Your task to perform on an android device: Open Reddit.com Image 0: 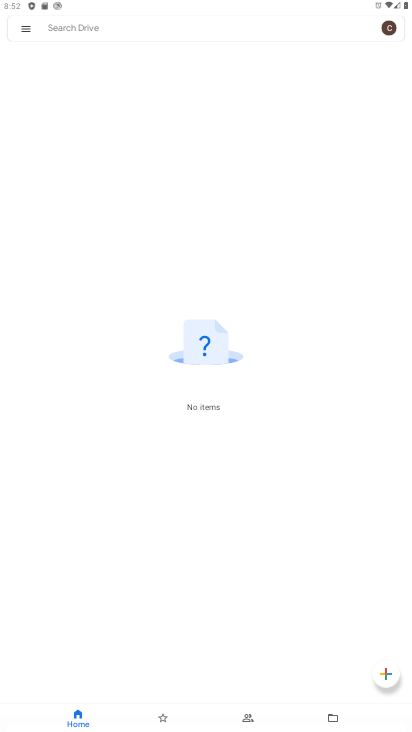
Step 0: press home button
Your task to perform on an android device: Open Reddit.com Image 1: 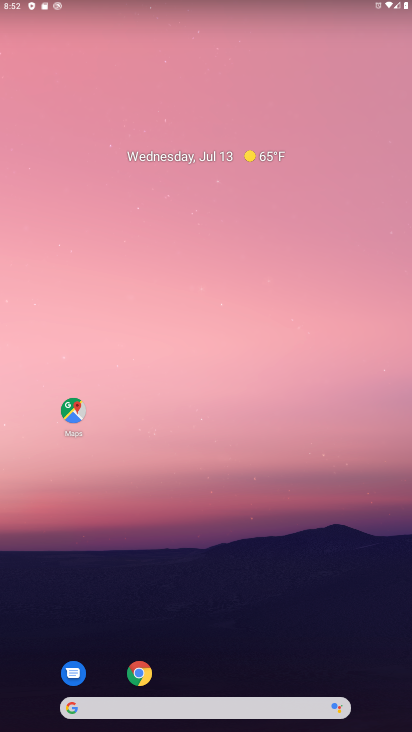
Step 1: click (141, 673)
Your task to perform on an android device: Open Reddit.com Image 2: 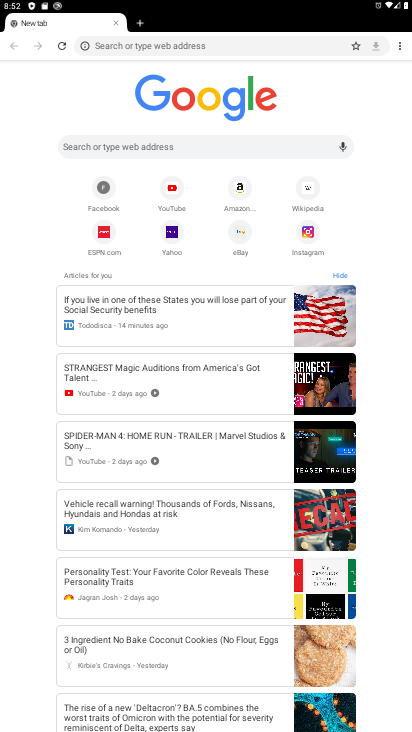
Step 2: click (238, 149)
Your task to perform on an android device: Open Reddit.com Image 3: 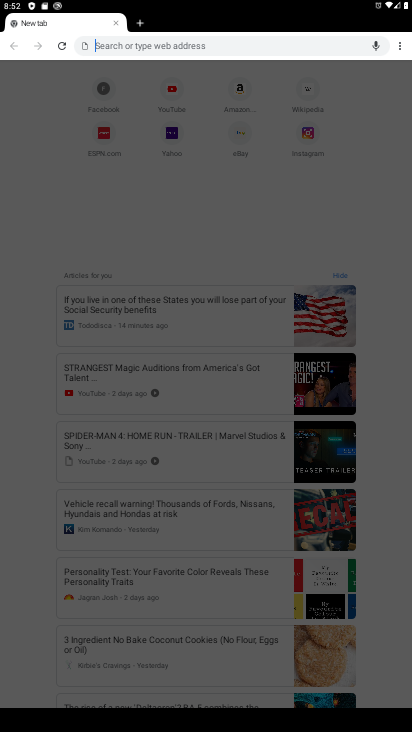
Step 3: type "Reddit.com"
Your task to perform on an android device: Open Reddit.com Image 4: 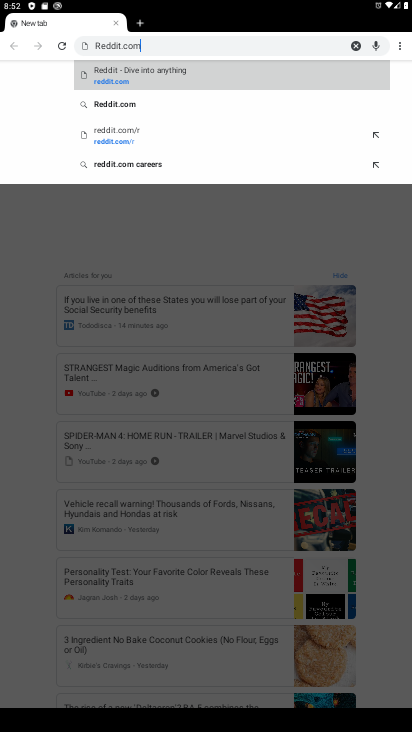
Step 4: click (132, 107)
Your task to perform on an android device: Open Reddit.com Image 5: 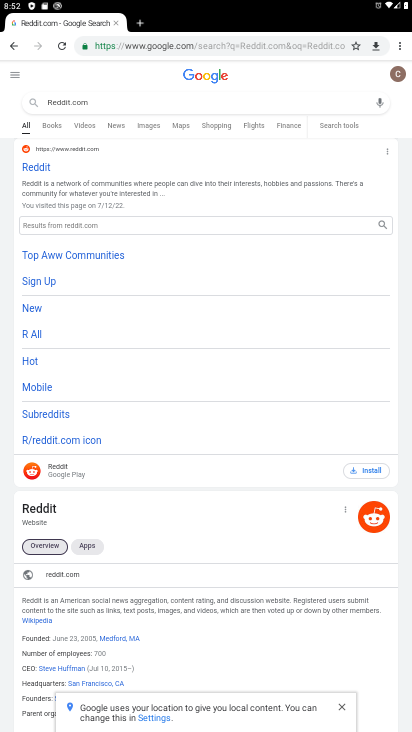
Step 5: click (38, 171)
Your task to perform on an android device: Open Reddit.com Image 6: 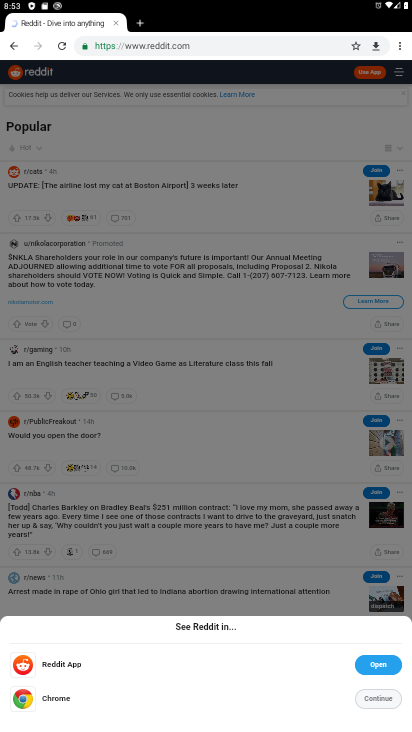
Step 6: click (387, 696)
Your task to perform on an android device: Open Reddit.com Image 7: 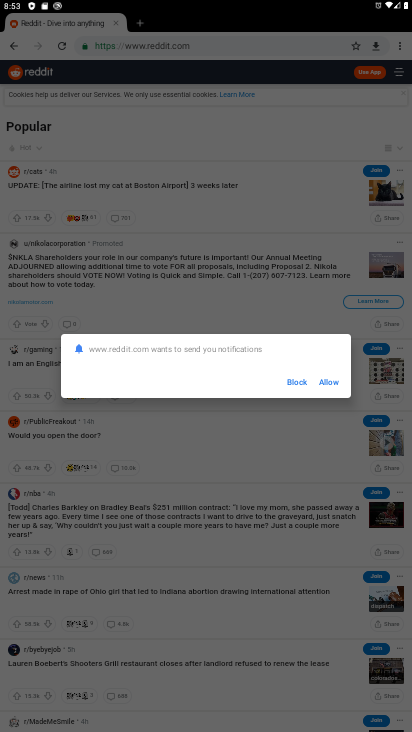
Step 7: click (329, 387)
Your task to perform on an android device: Open Reddit.com Image 8: 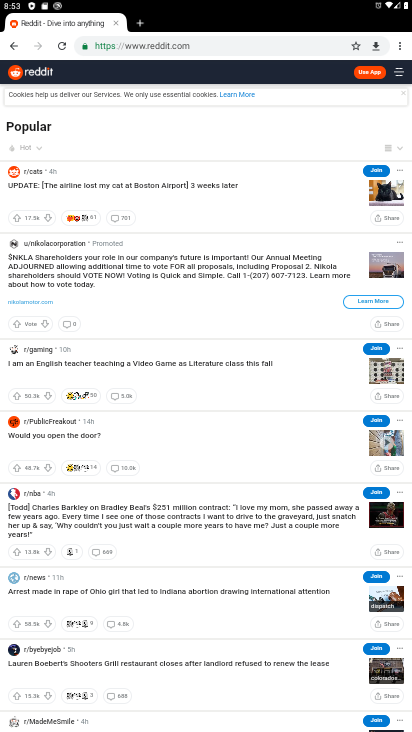
Step 8: task complete